Your task to perform on an android device: What's the weather going to be tomorrow? Image 0: 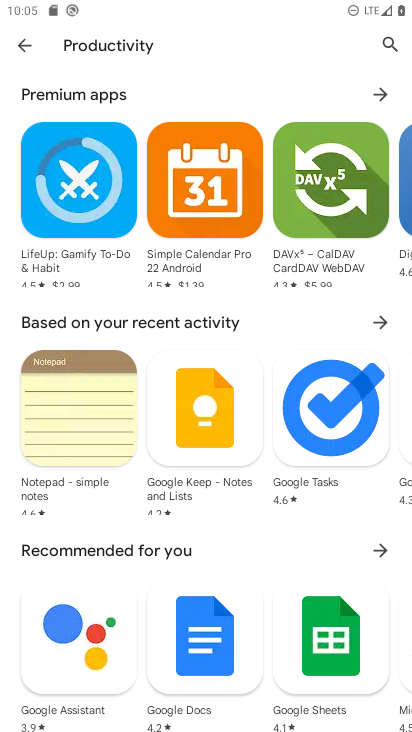
Step 0: press home button
Your task to perform on an android device: What's the weather going to be tomorrow? Image 1: 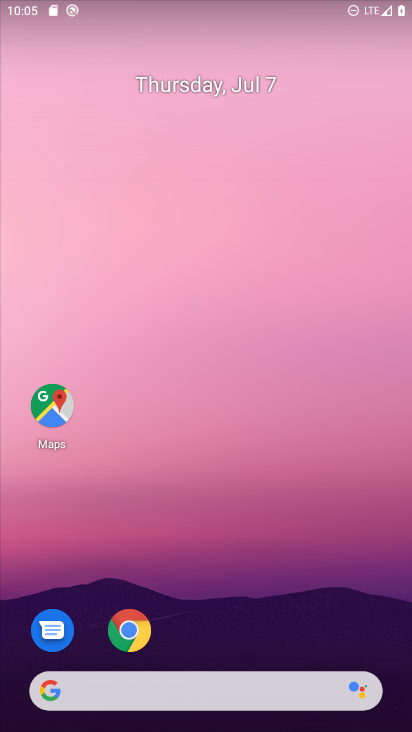
Step 1: drag from (238, 623) to (178, 182)
Your task to perform on an android device: What's the weather going to be tomorrow? Image 2: 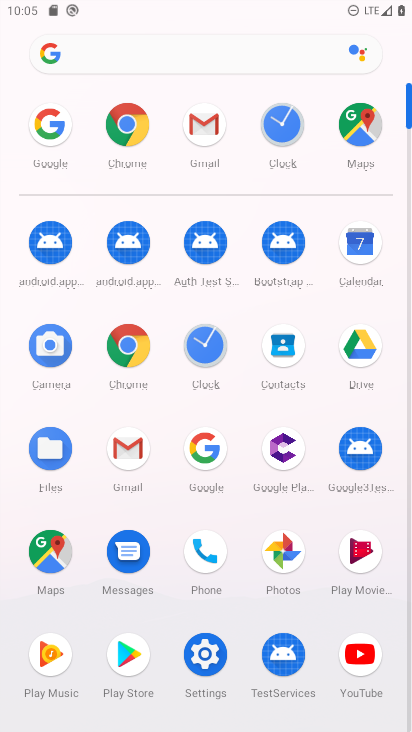
Step 2: click (211, 447)
Your task to perform on an android device: What's the weather going to be tomorrow? Image 3: 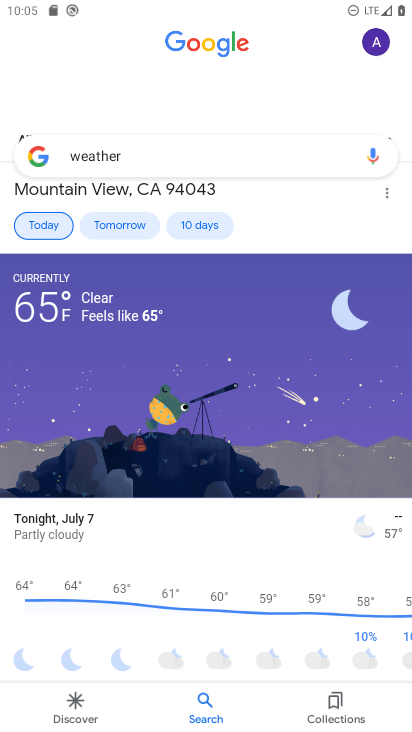
Step 3: click (123, 236)
Your task to perform on an android device: What's the weather going to be tomorrow? Image 4: 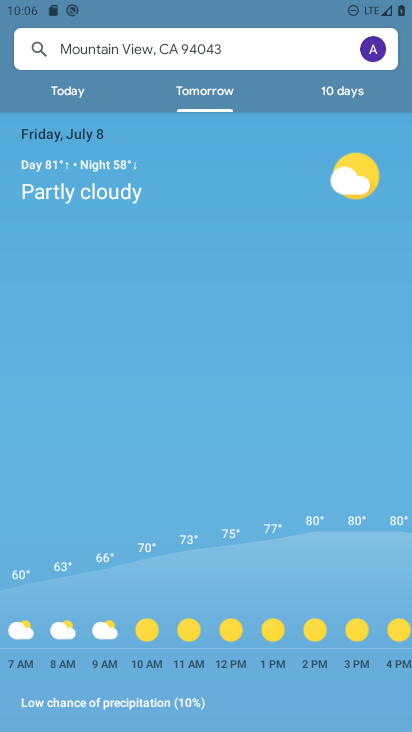
Step 4: task complete